Your task to perform on an android device: empty trash in google photos Image 0: 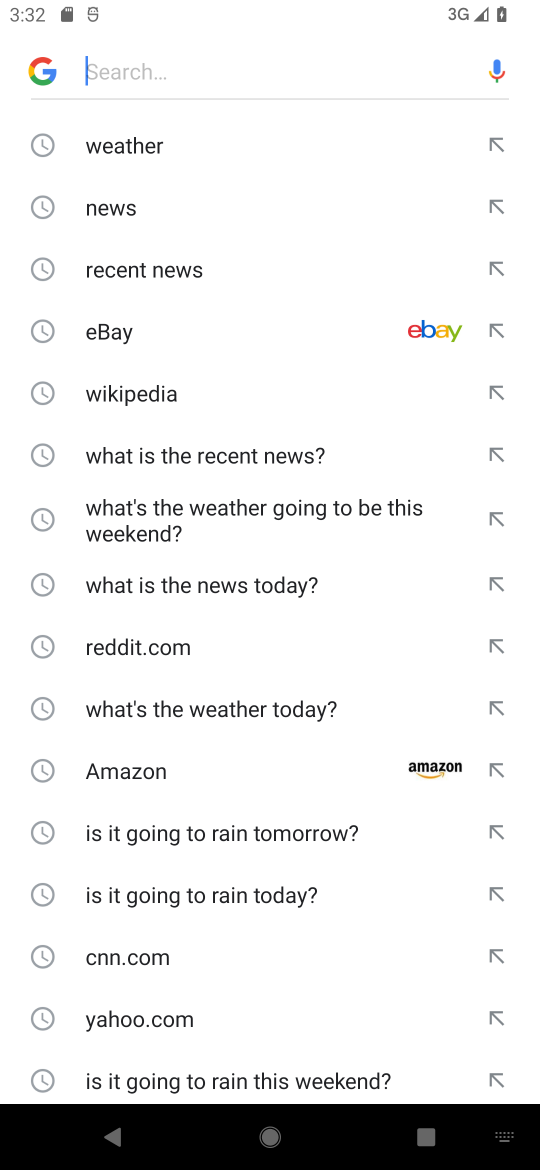
Step 0: press home button
Your task to perform on an android device: empty trash in google photos Image 1: 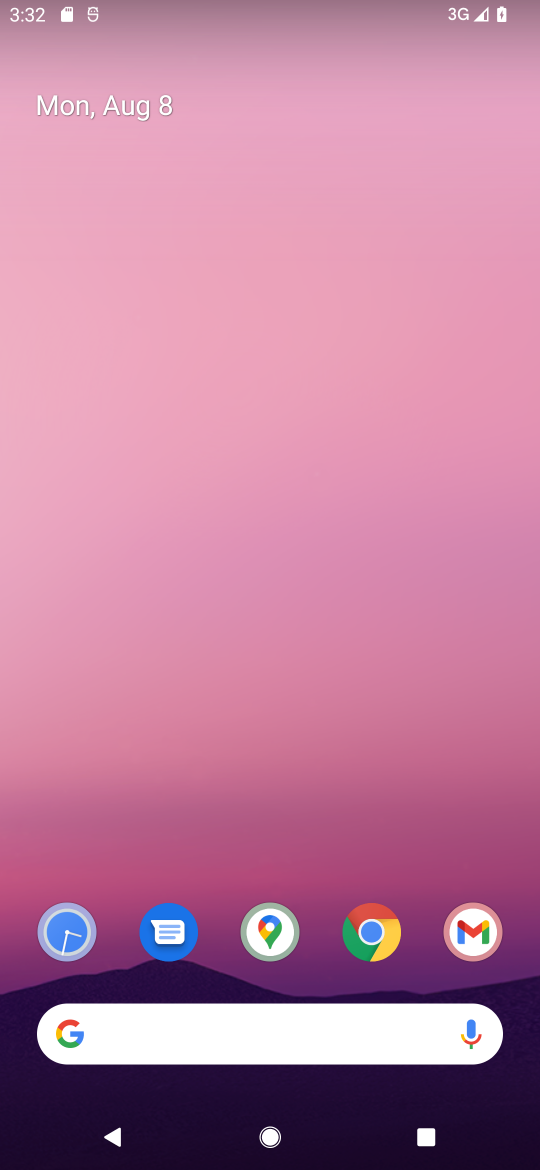
Step 1: drag from (97, 49) to (165, 34)
Your task to perform on an android device: empty trash in google photos Image 2: 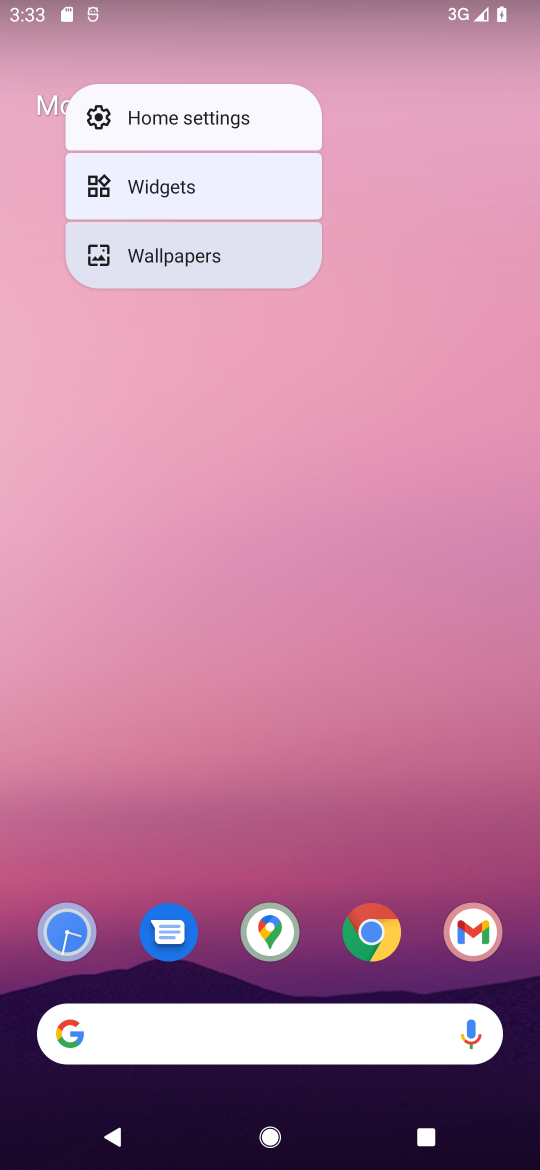
Step 2: drag from (368, 773) to (12, 386)
Your task to perform on an android device: empty trash in google photos Image 3: 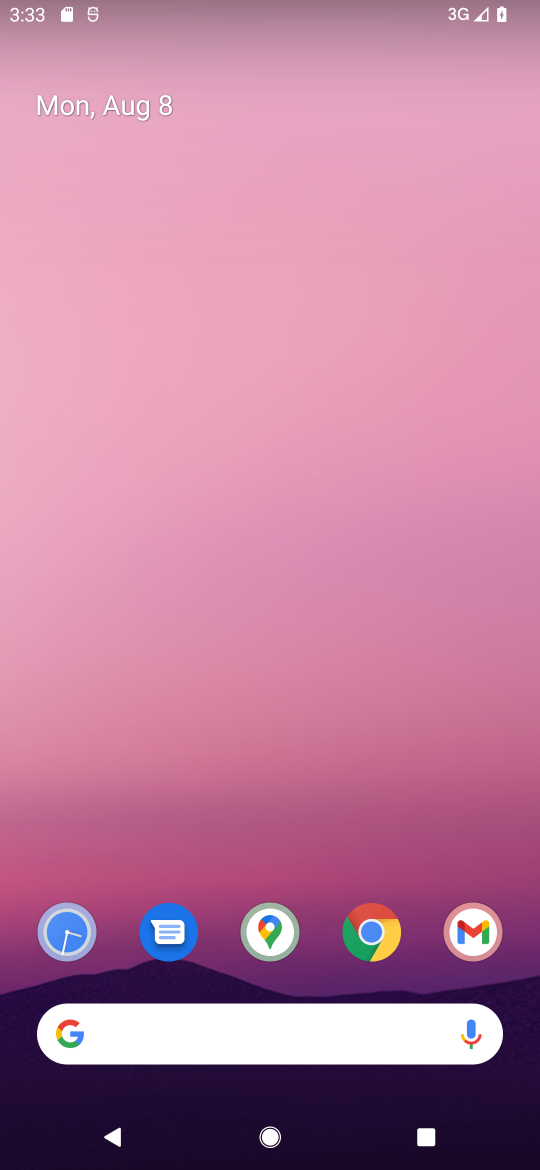
Step 3: drag from (382, 949) to (3, 101)
Your task to perform on an android device: empty trash in google photos Image 4: 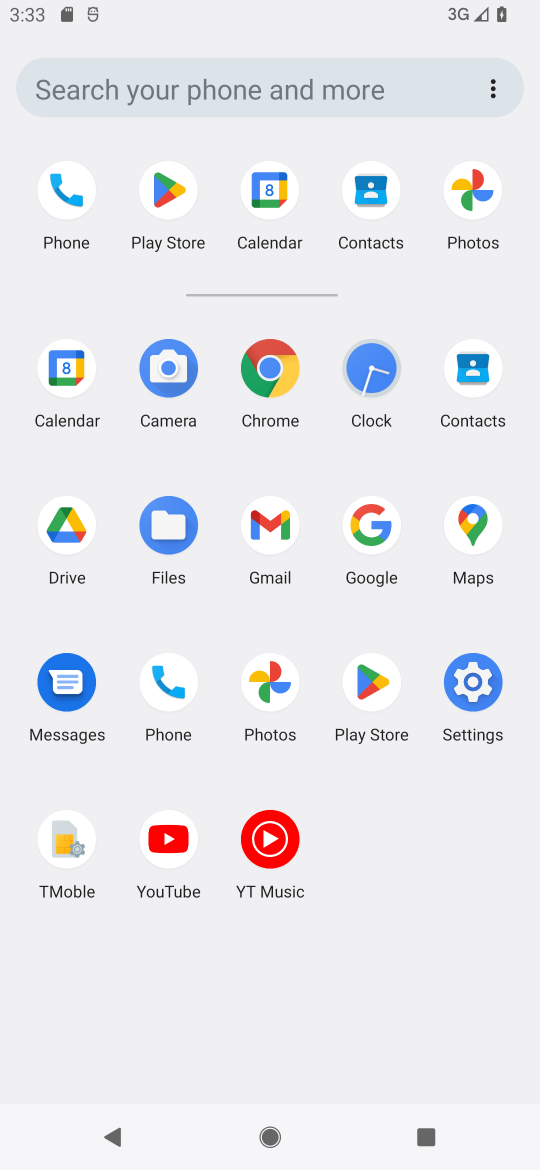
Step 4: click (290, 706)
Your task to perform on an android device: empty trash in google photos Image 5: 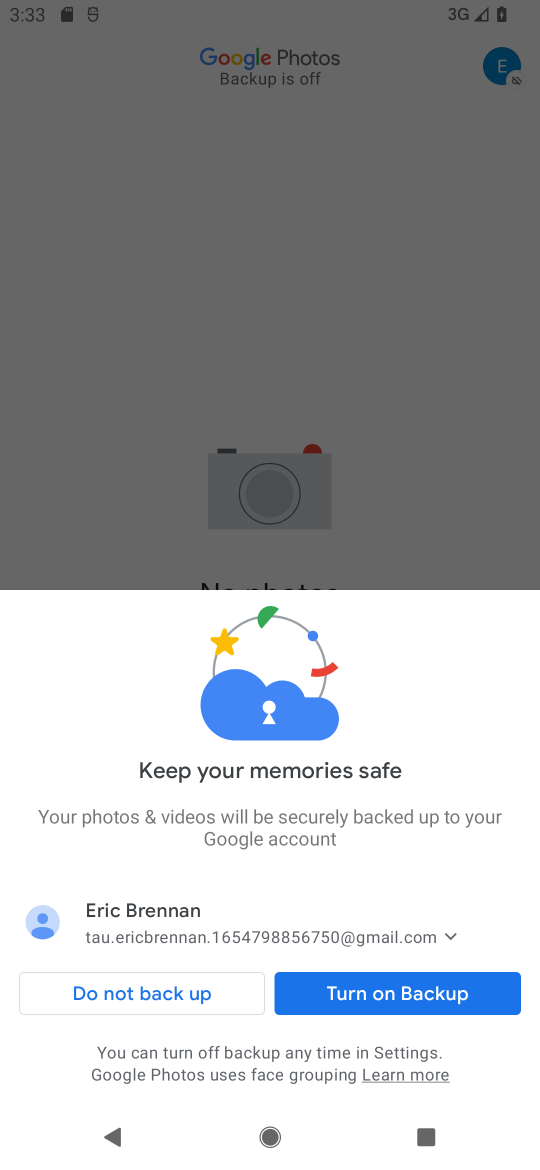
Step 5: click (416, 983)
Your task to perform on an android device: empty trash in google photos Image 6: 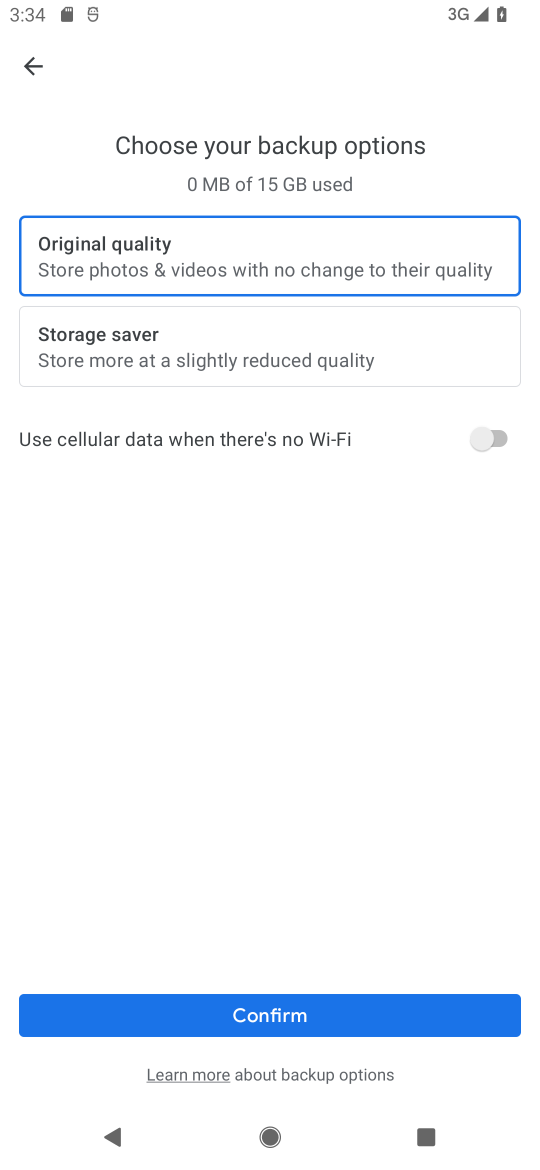
Step 6: click (266, 1008)
Your task to perform on an android device: empty trash in google photos Image 7: 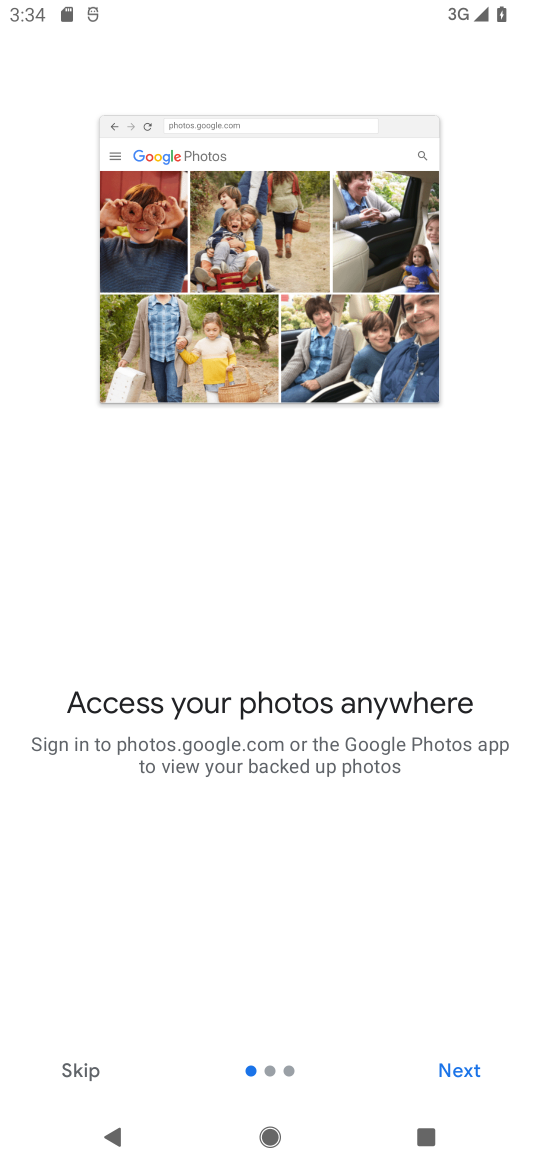
Step 7: click (462, 1051)
Your task to perform on an android device: empty trash in google photos Image 8: 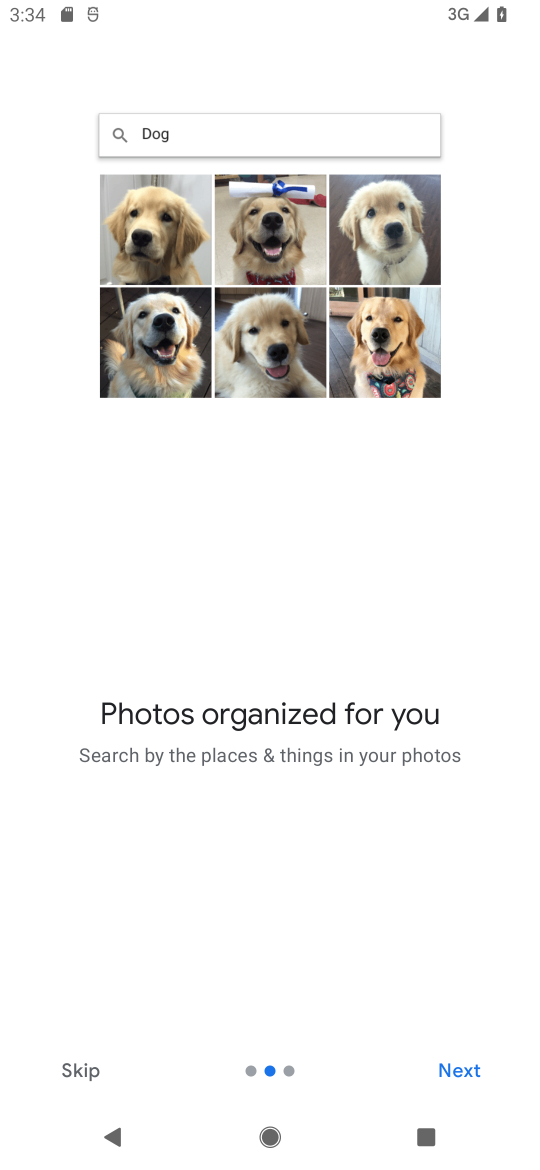
Step 8: click (438, 1078)
Your task to perform on an android device: empty trash in google photos Image 9: 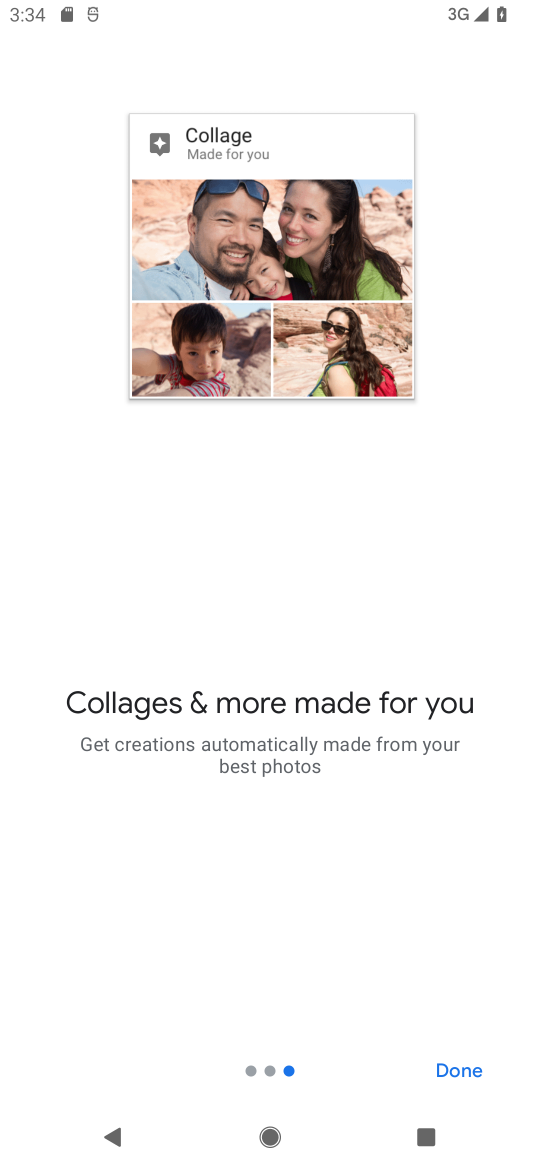
Step 9: click (449, 1056)
Your task to perform on an android device: empty trash in google photos Image 10: 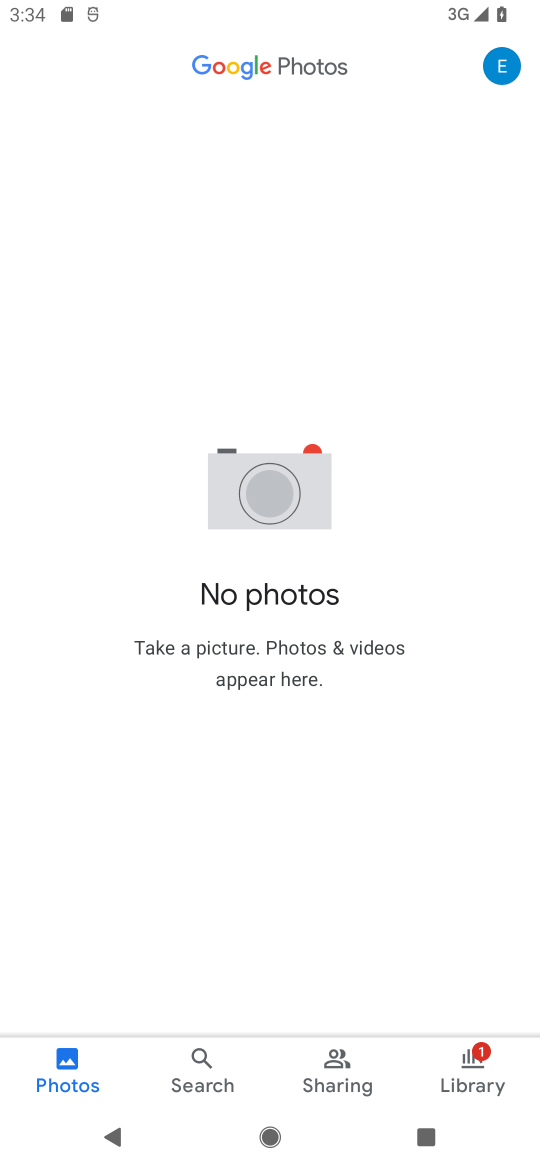
Step 10: click (516, 58)
Your task to perform on an android device: empty trash in google photos Image 11: 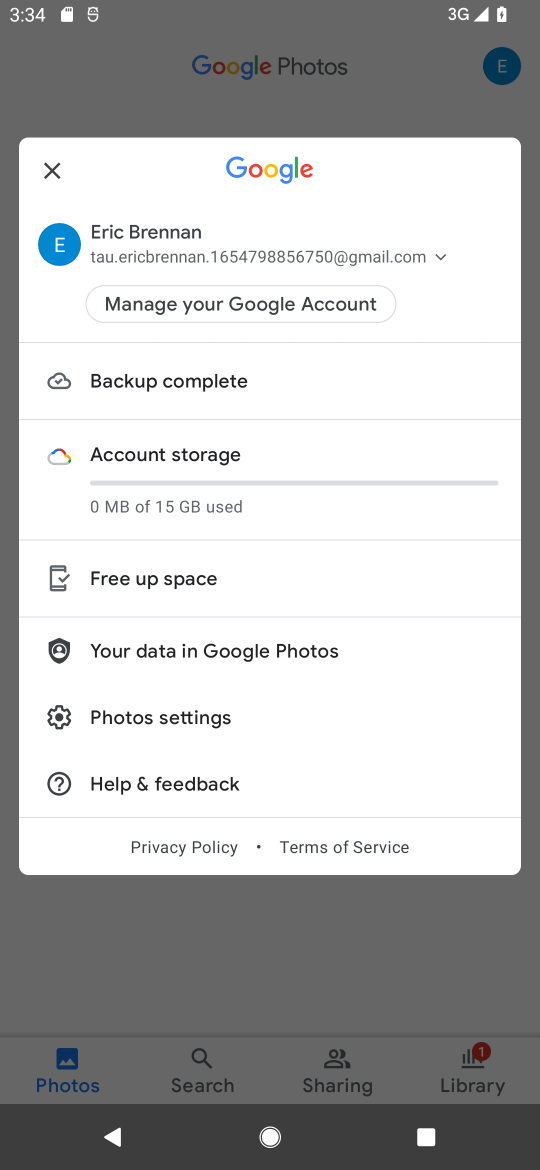
Step 11: task complete